Your task to perform on an android device: see tabs open on other devices in the chrome app Image 0: 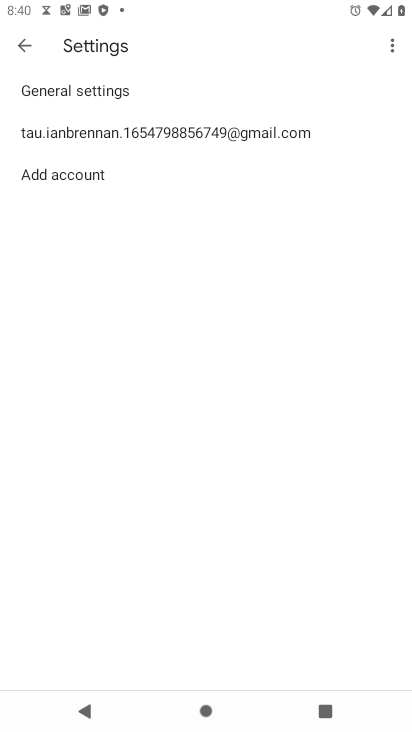
Step 0: press home button
Your task to perform on an android device: see tabs open on other devices in the chrome app Image 1: 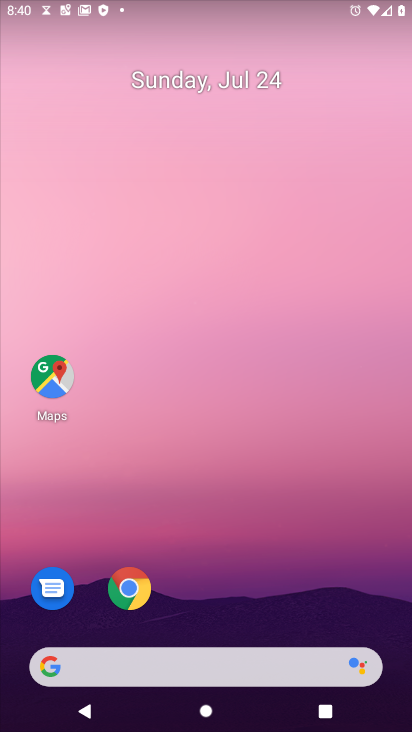
Step 1: click (132, 582)
Your task to perform on an android device: see tabs open on other devices in the chrome app Image 2: 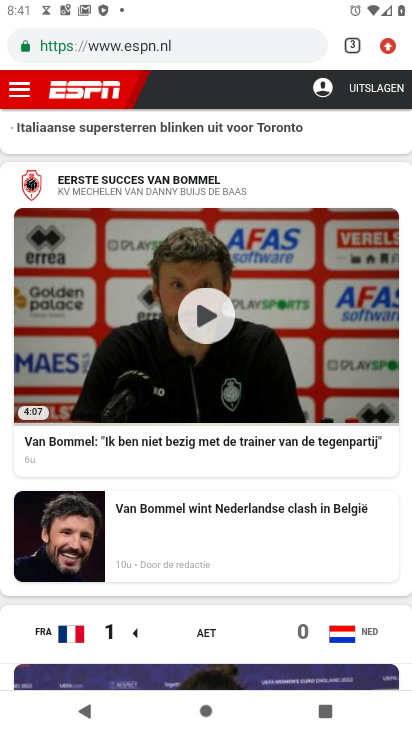
Step 2: click (391, 45)
Your task to perform on an android device: see tabs open on other devices in the chrome app Image 3: 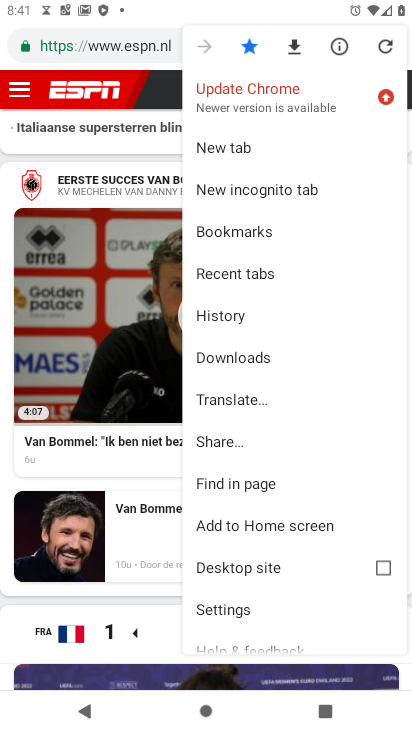
Step 3: click (282, 267)
Your task to perform on an android device: see tabs open on other devices in the chrome app Image 4: 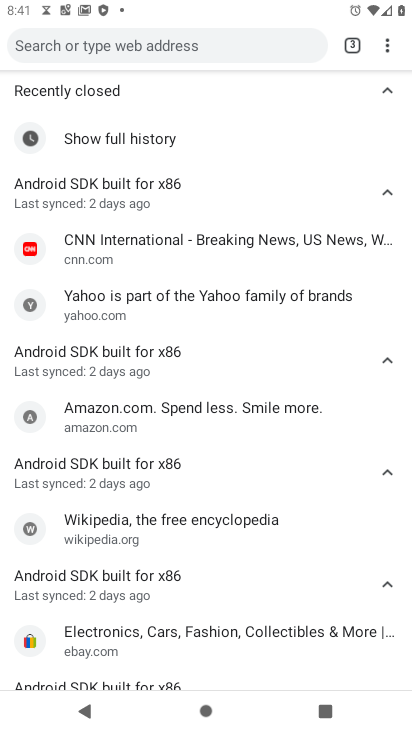
Step 4: task complete